Your task to perform on an android device: Open Google Chrome Image 0: 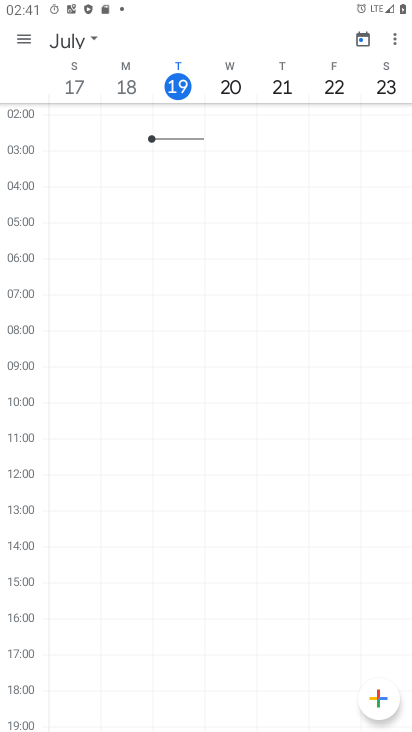
Step 0: drag from (194, 678) to (194, 306)
Your task to perform on an android device: Open Google Chrome Image 1: 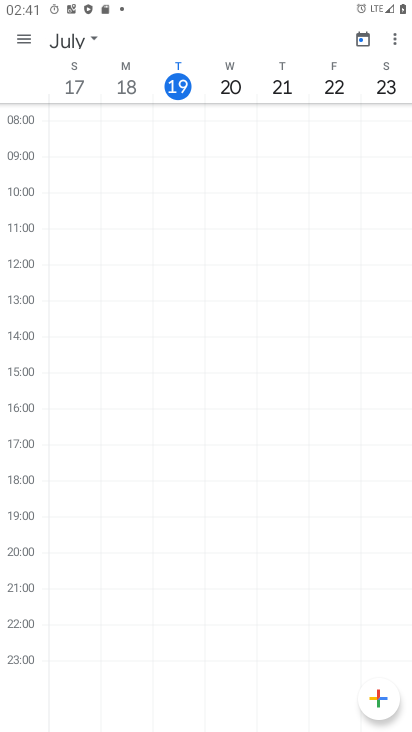
Step 1: press home button
Your task to perform on an android device: Open Google Chrome Image 2: 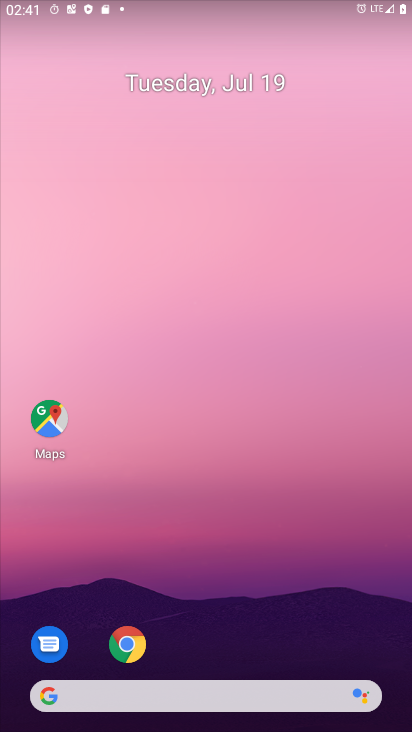
Step 2: click (129, 647)
Your task to perform on an android device: Open Google Chrome Image 3: 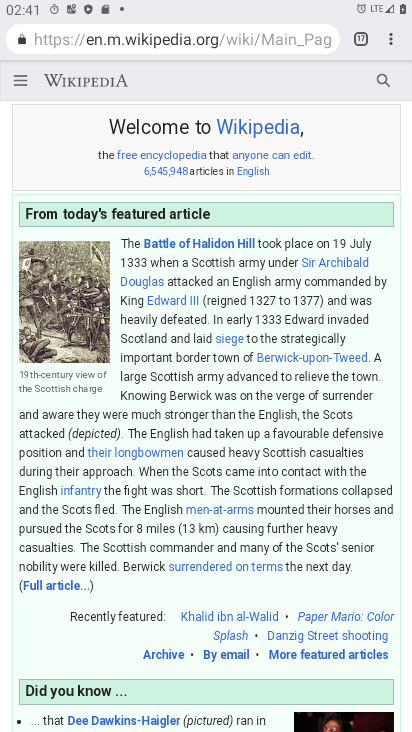
Step 3: task complete